Your task to perform on an android device: read, delete, or share a saved page in the chrome app Image 0: 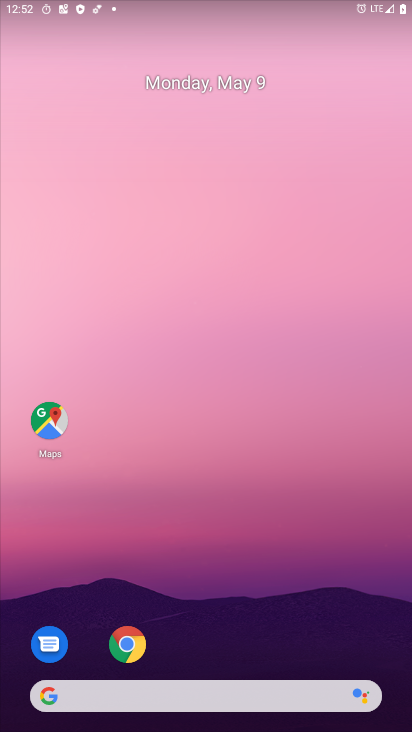
Step 0: click (77, 108)
Your task to perform on an android device: read, delete, or share a saved page in the chrome app Image 1: 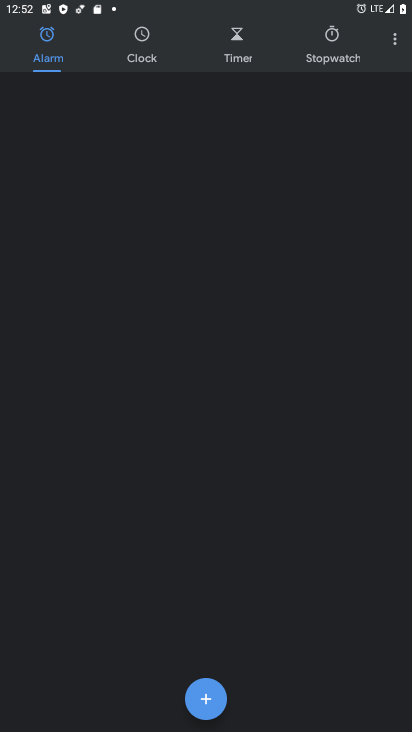
Step 1: drag from (309, 551) to (150, 40)
Your task to perform on an android device: read, delete, or share a saved page in the chrome app Image 2: 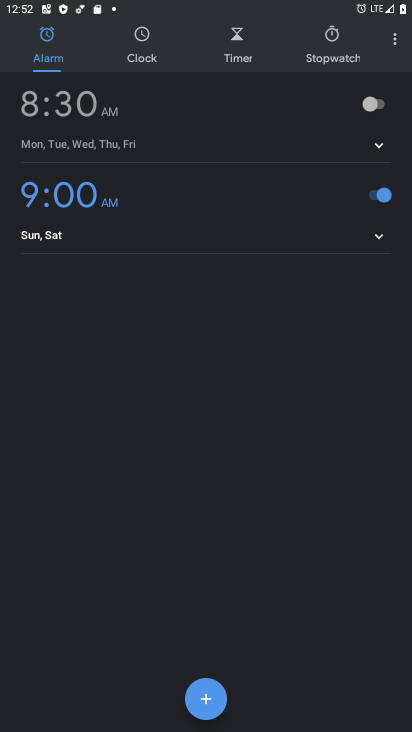
Step 2: press home button
Your task to perform on an android device: read, delete, or share a saved page in the chrome app Image 3: 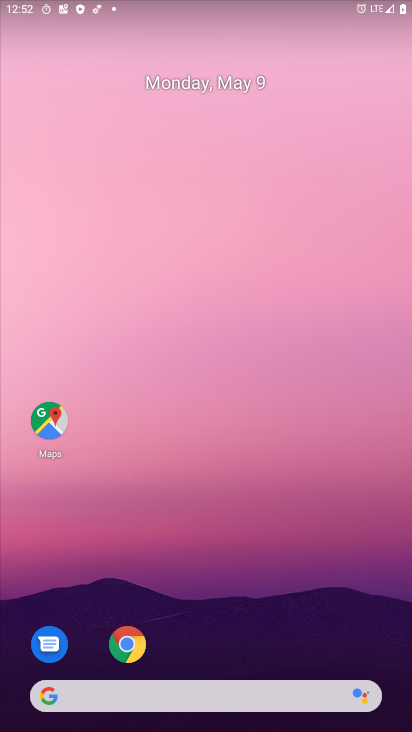
Step 3: drag from (272, 582) to (93, 120)
Your task to perform on an android device: read, delete, or share a saved page in the chrome app Image 4: 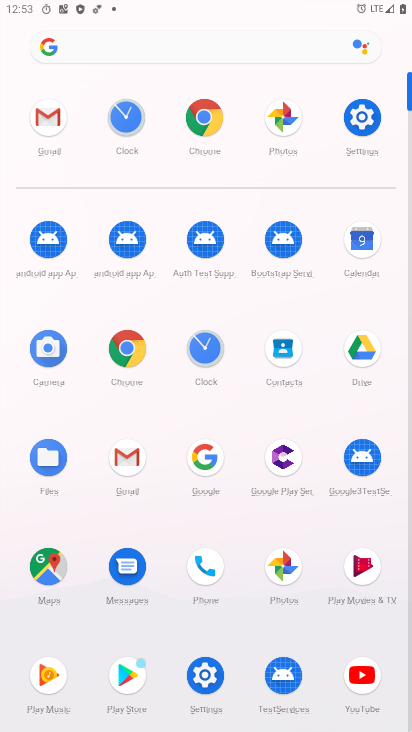
Step 4: click (198, 122)
Your task to perform on an android device: read, delete, or share a saved page in the chrome app Image 5: 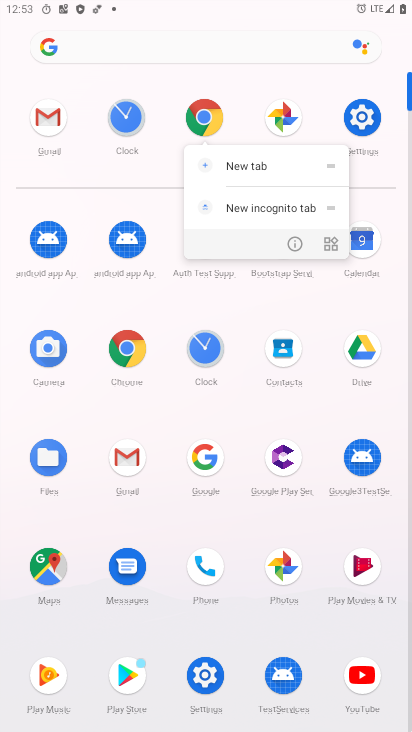
Step 5: click (202, 115)
Your task to perform on an android device: read, delete, or share a saved page in the chrome app Image 6: 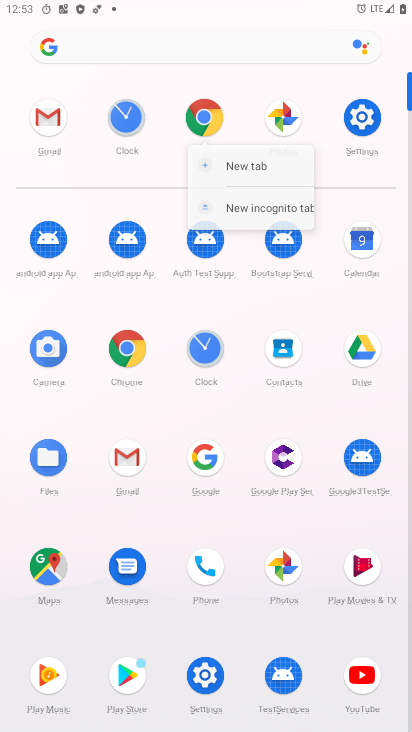
Step 6: click (202, 115)
Your task to perform on an android device: read, delete, or share a saved page in the chrome app Image 7: 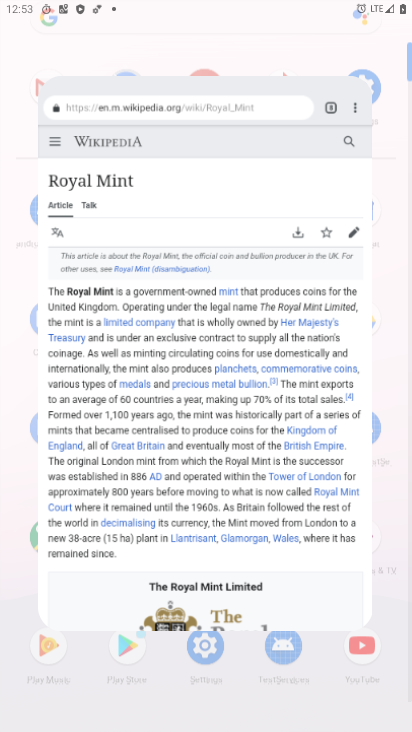
Step 7: click (203, 114)
Your task to perform on an android device: read, delete, or share a saved page in the chrome app Image 8: 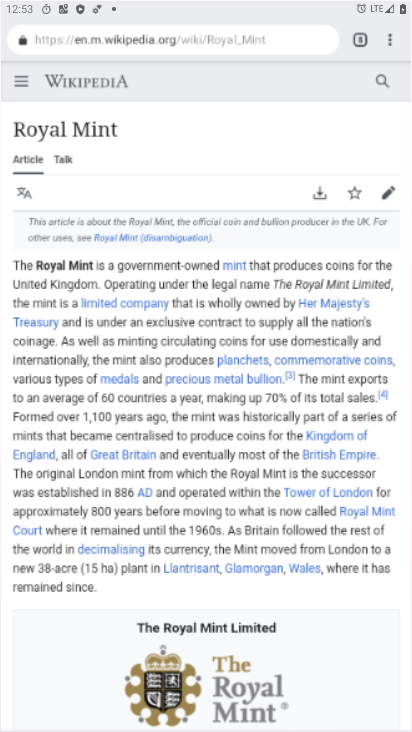
Step 8: click (203, 114)
Your task to perform on an android device: read, delete, or share a saved page in the chrome app Image 9: 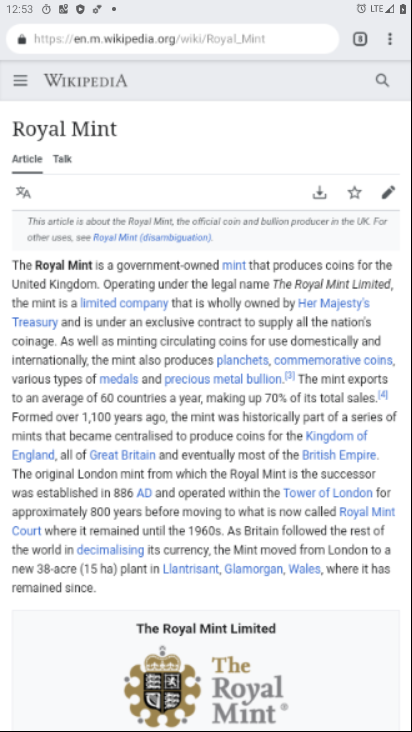
Step 9: click (203, 114)
Your task to perform on an android device: read, delete, or share a saved page in the chrome app Image 10: 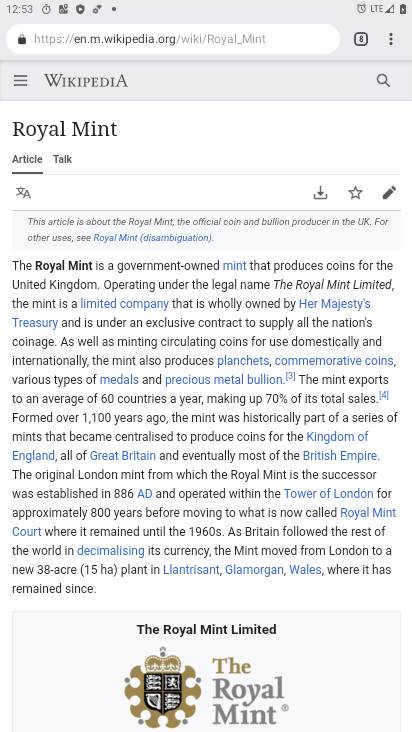
Step 10: drag from (385, 38) to (264, 257)
Your task to perform on an android device: read, delete, or share a saved page in the chrome app Image 11: 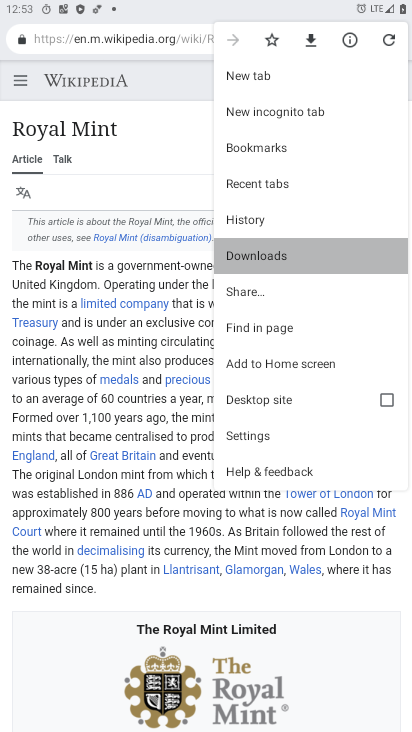
Step 11: click (263, 256)
Your task to perform on an android device: read, delete, or share a saved page in the chrome app Image 12: 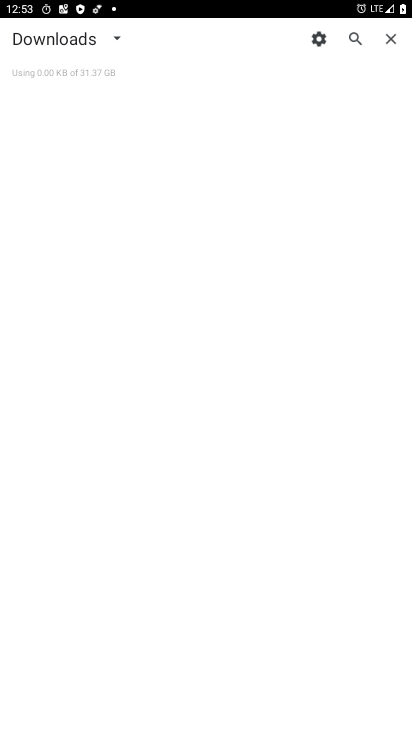
Step 12: click (118, 35)
Your task to perform on an android device: read, delete, or share a saved page in the chrome app Image 13: 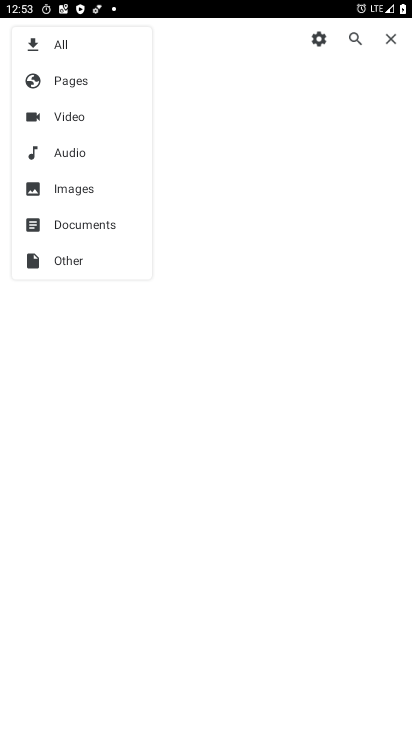
Step 13: click (80, 96)
Your task to perform on an android device: read, delete, or share a saved page in the chrome app Image 14: 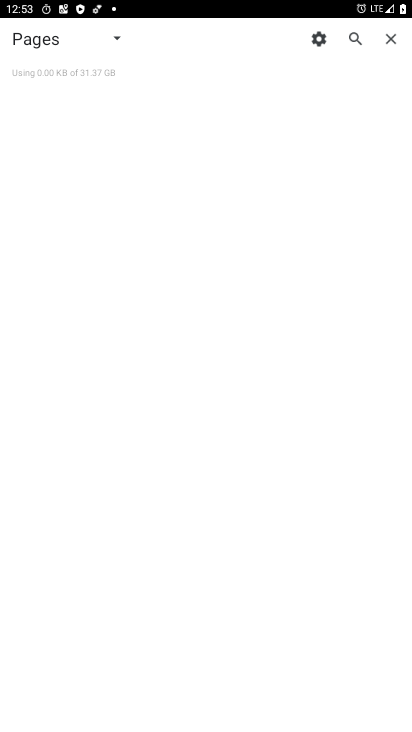
Step 14: click (84, 84)
Your task to perform on an android device: read, delete, or share a saved page in the chrome app Image 15: 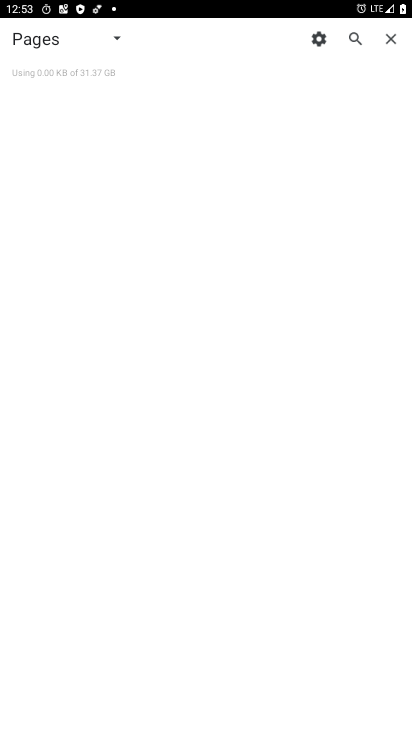
Step 15: task complete